Your task to perform on an android device: Do I have any events this weekend? Image 0: 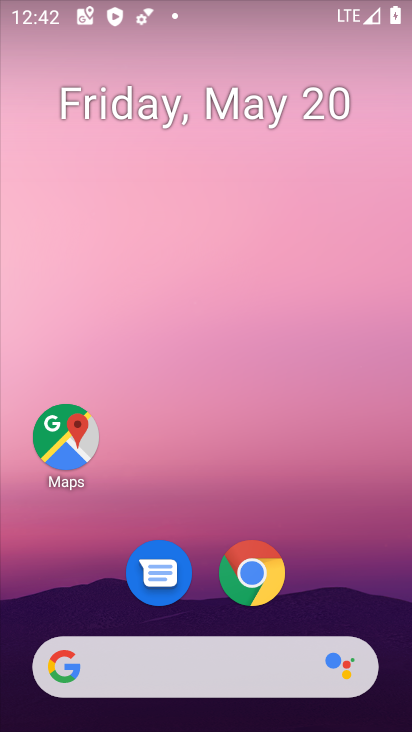
Step 0: drag from (191, 587) to (246, 23)
Your task to perform on an android device: Do I have any events this weekend? Image 1: 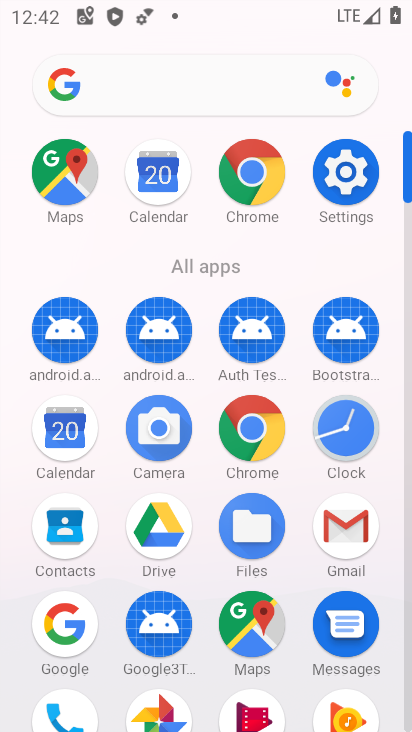
Step 1: click (68, 440)
Your task to perform on an android device: Do I have any events this weekend? Image 2: 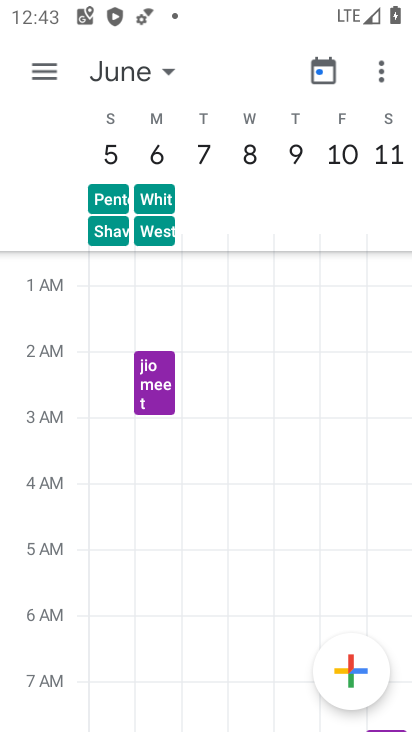
Step 2: drag from (132, 158) to (401, 186)
Your task to perform on an android device: Do I have any events this weekend? Image 3: 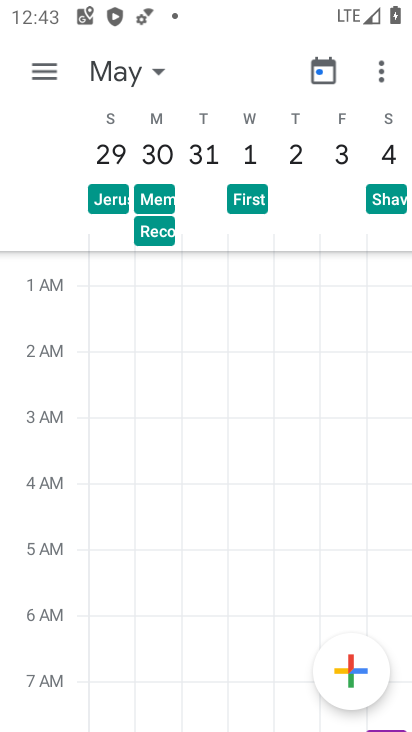
Step 3: drag from (120, 215) to (379, 220)
Your task to perform on an android device: Do I have any events this weekend? Image 4: 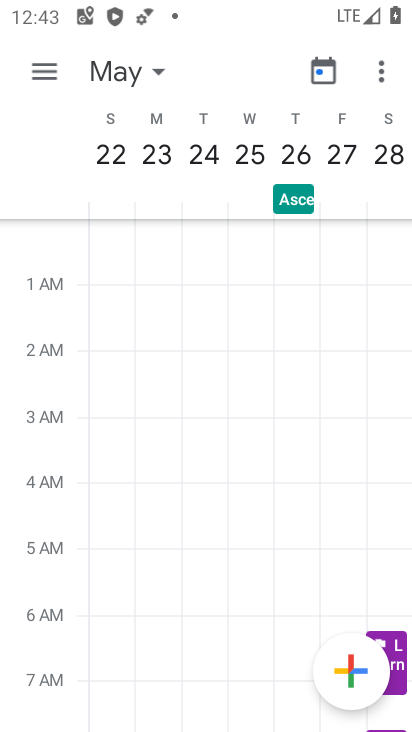
Step 4: drag from (155, 188) to (398, 210)
Your task to perform on an android device: Do I have any events this weekend? Image 5: 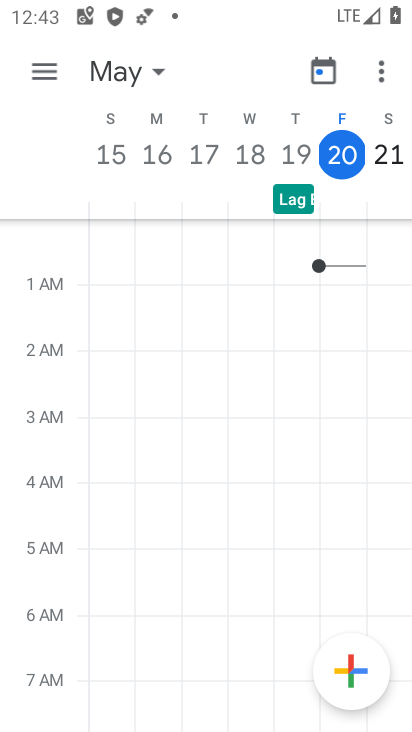
Step 5: click (42, 63)
Your task to perform on an android device: Do I have any events this weekend? Image 6: 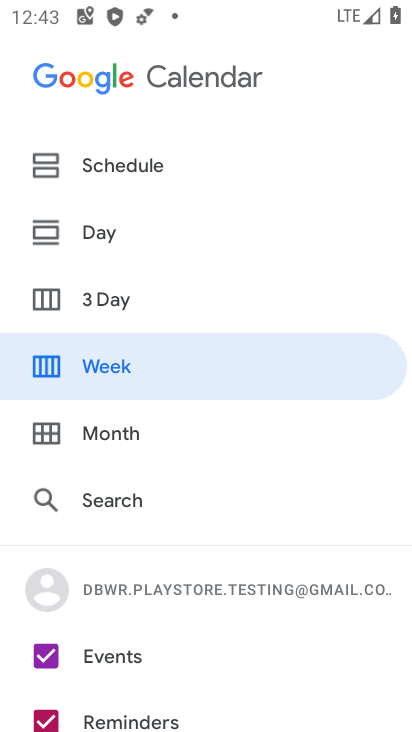
Step 6: drag from (83, 622) to (160, 334)
Your task to perform on an android device: Do I have any events this weekend? Image 7: 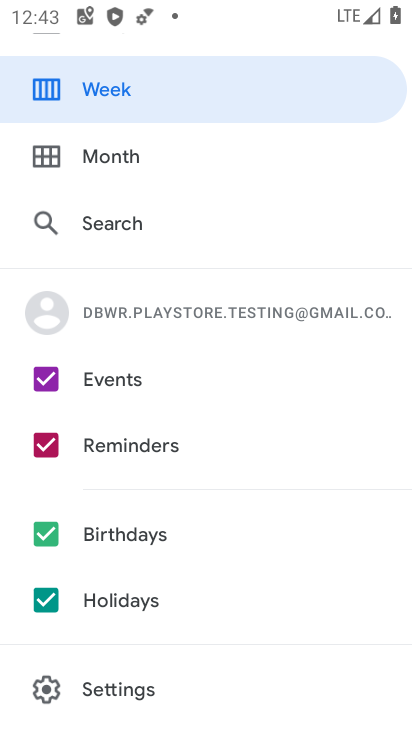
Step 7: click (106, 465)
Your task to perform on an android device: Do I have any events this weekend? Image 8: 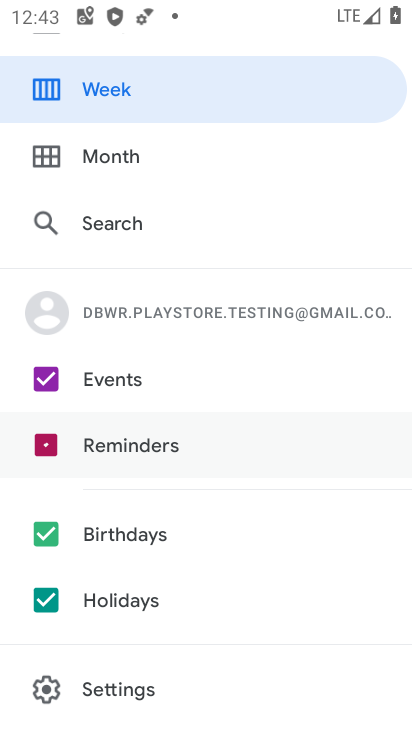
Step 8: click (103, 558)
Your task to perform on an android device: Do I have any events this weekend? Image 9: 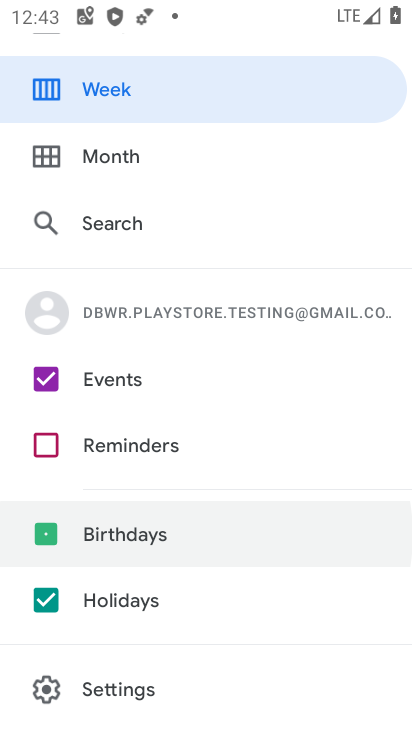
Step 9: click (100, 598)
Your task to perform on an android device: Do I have any events this weekend? Image 10: 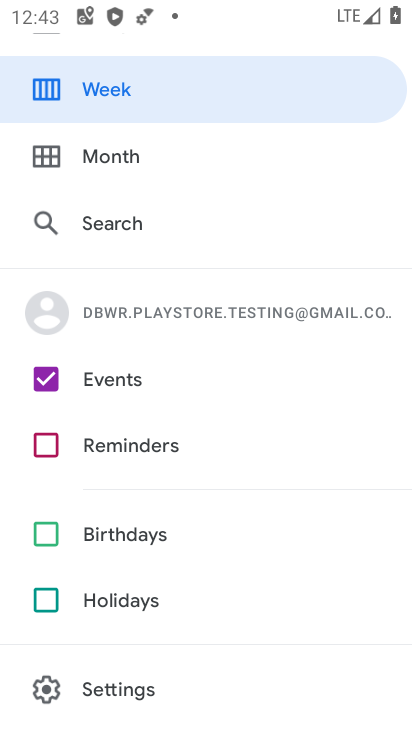
Step 10: click (137, 97)
Your task to perform on an android device: Do I have any events this weekend? Image 11: 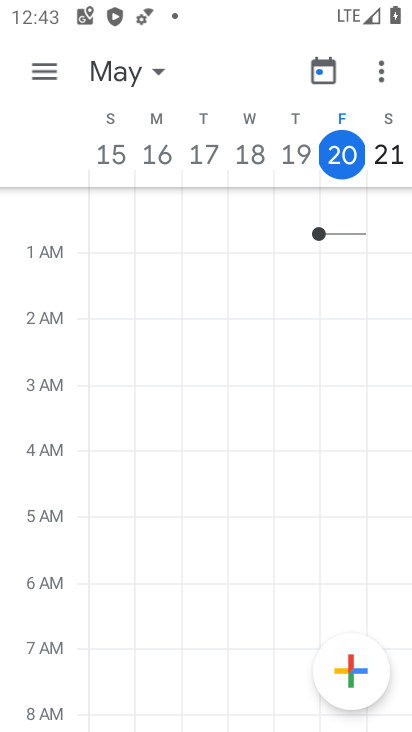
Step 11: task complete